Your task to perform on an android device: stop showing notifications on the lock screen Image 0: 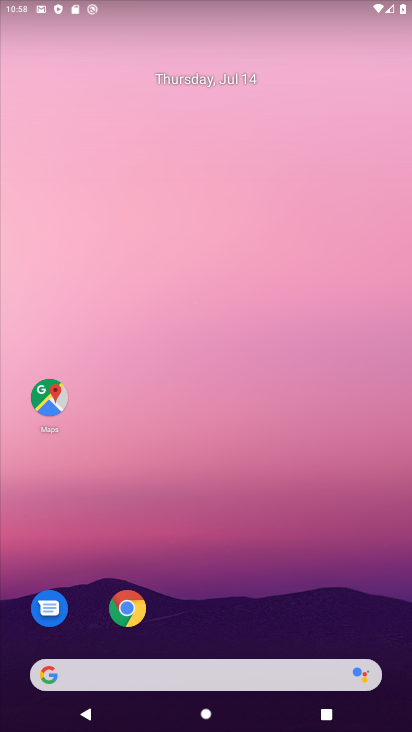
Step 0: drag from (308, 555) to (239, 60)
Your task to perform on an android device: stop showing notifications on the lock screen Image 1: 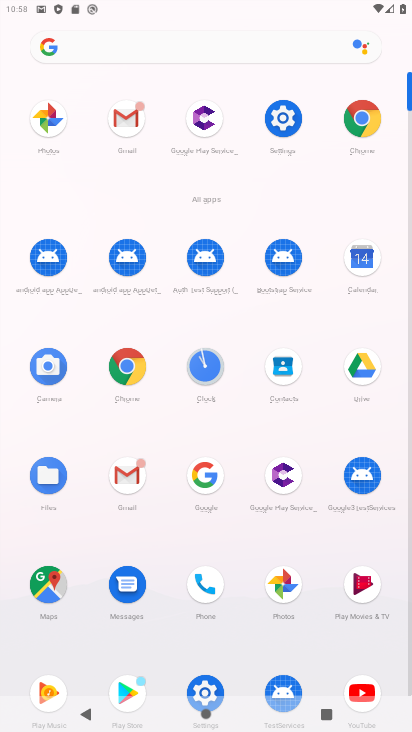
Step 1: click (289, 122)
Your task to perform on an android device: stop showing notifications on the lock screen Image 2: 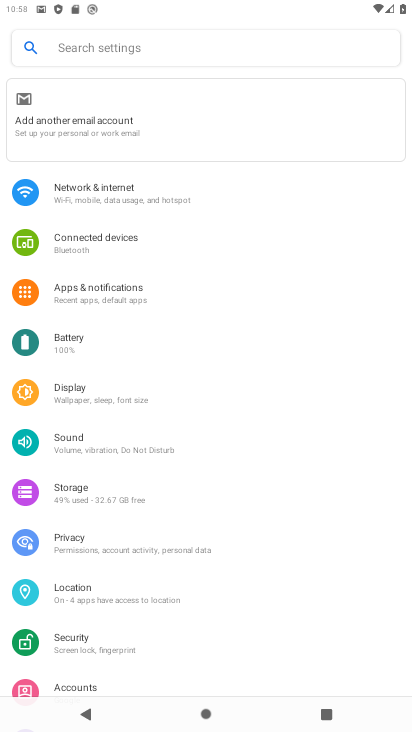
Step 2: click (107, 289)
Your task to perform on an android device: stop showing notifications on the lock screen Image 3: 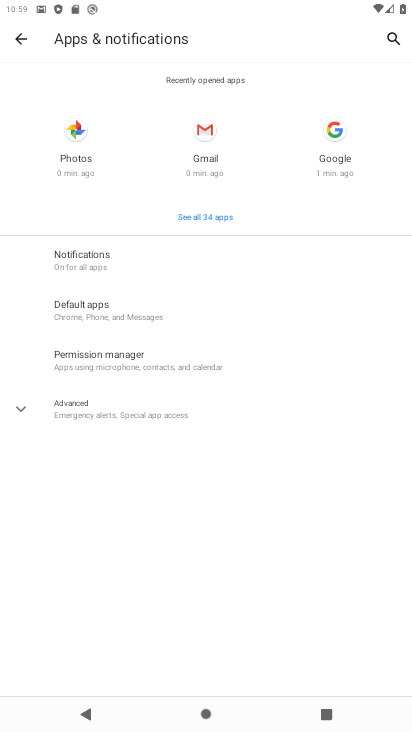
Step 3: click (58, 247)
Your task to perform on an android device: stop showing notifications on the lock screen Image 4: 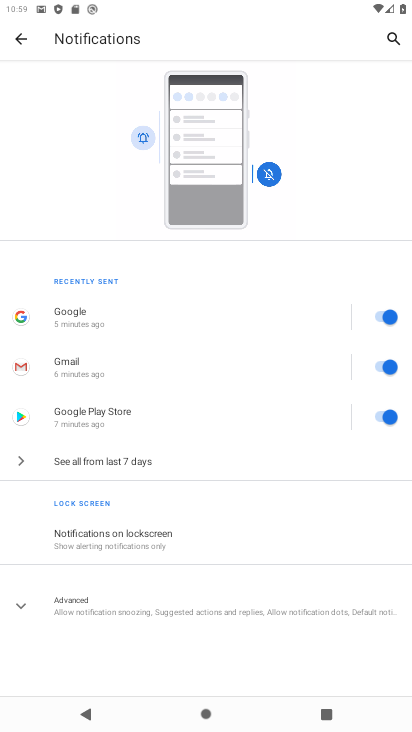
Step 4: click (127, 535)
Your task to perform on an android device: stop showing notifications on the lock screen Image 5: 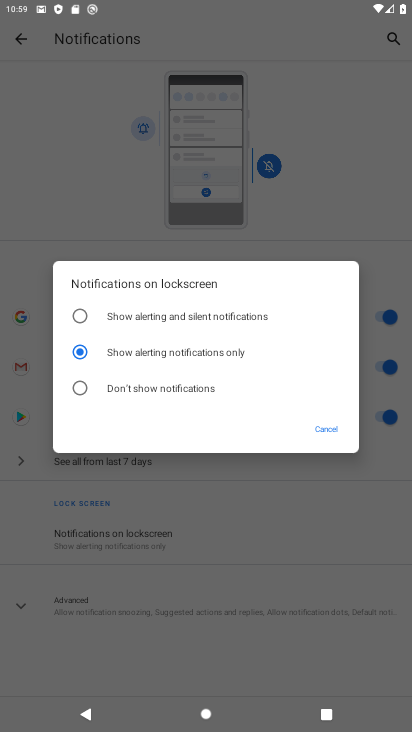
Step 5: click (89, 381)
Your task to perform on an android device: stop showing notifications on the lock screen Image 6: 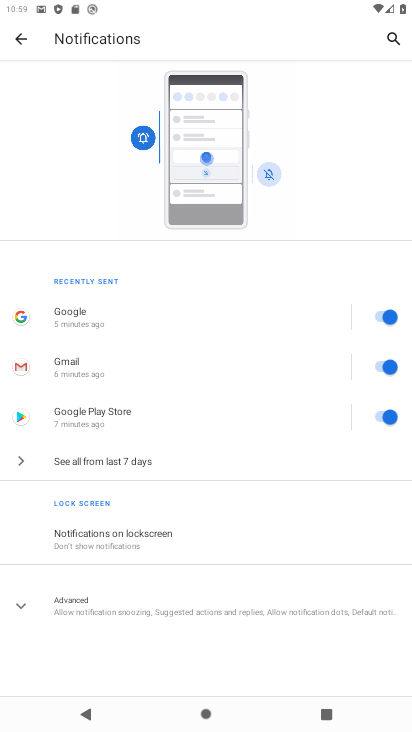
Step 6: task complete